Your task to perform on an android device: Open settings on Google Maps Image 0: 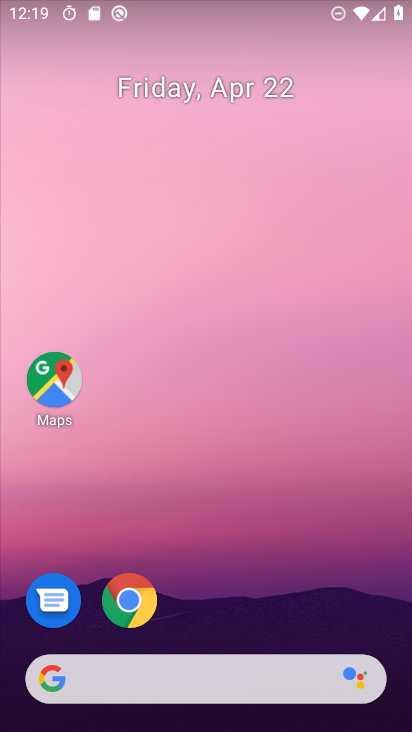
Step 0: click (56, 379)
Your task to perform on an android device: Open settings on Google Maps Image 1: 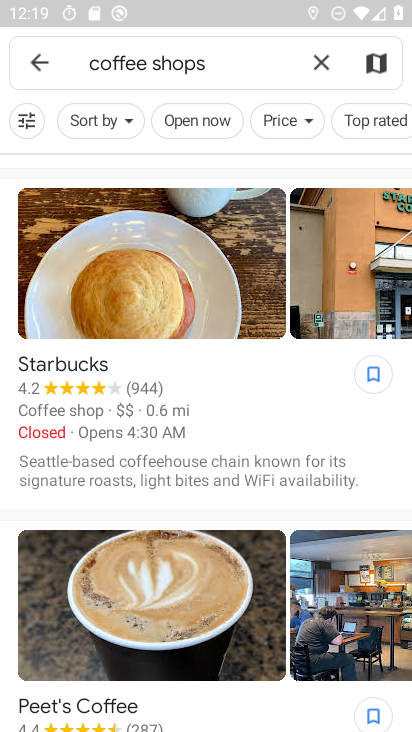
Step 1: click (322, 65)
Your task to perform on an android device: Open settings on Google Maps Image 2: 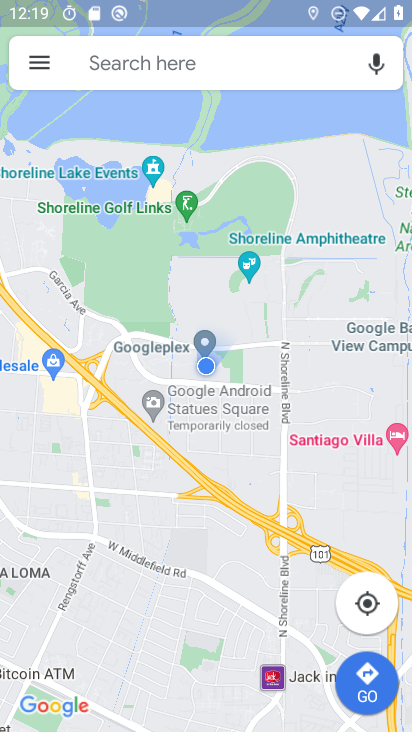
Step 2: click (41, 62)
Your task to perform on an android device: Open settings on Google Maps Image 3: 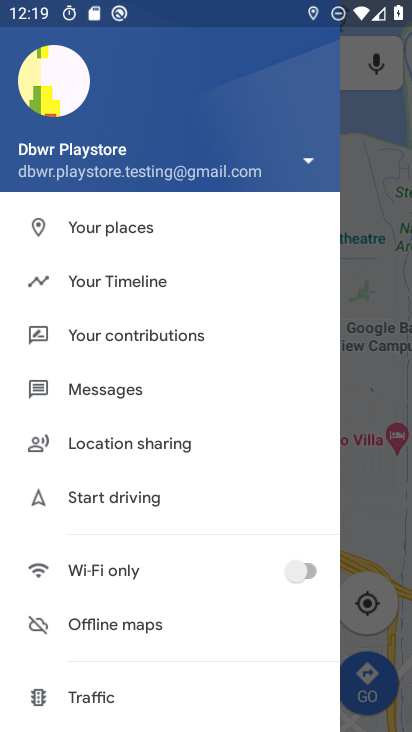
Step 3: drag from (125, 363) to (145, 277)
Your task to perform on an android device: Open settings on Google Maps Image 4: 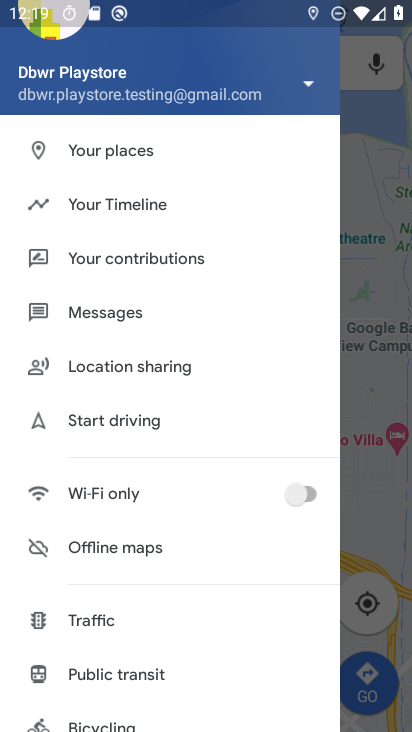
Step 4: drag from (120, 342) to (134, 276)
Your task to perform on an android device: Open settings on Google Maps Image 5: 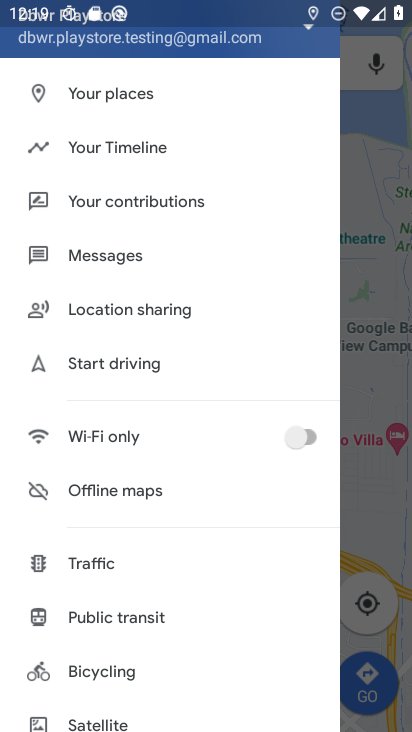
Step 5: drag from (98, 337) to (151, 248)
Your task to perform on an android device: Open settings on Google Maps Image 6: 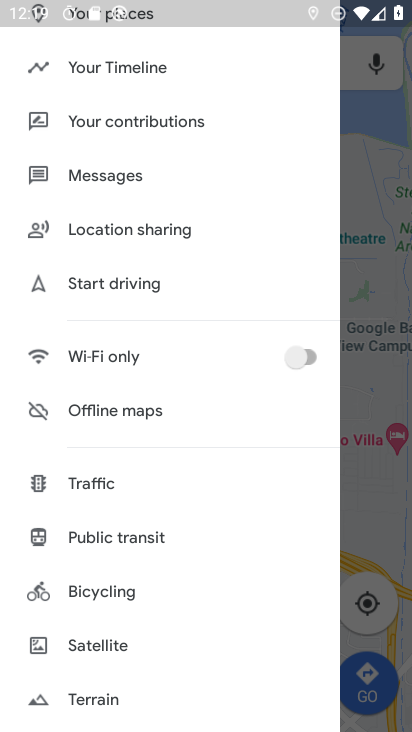
Step 6: drag from (104, 307) to (152, 240)
Your task to perform on an android device: Open settings on Google Maps Image 7: 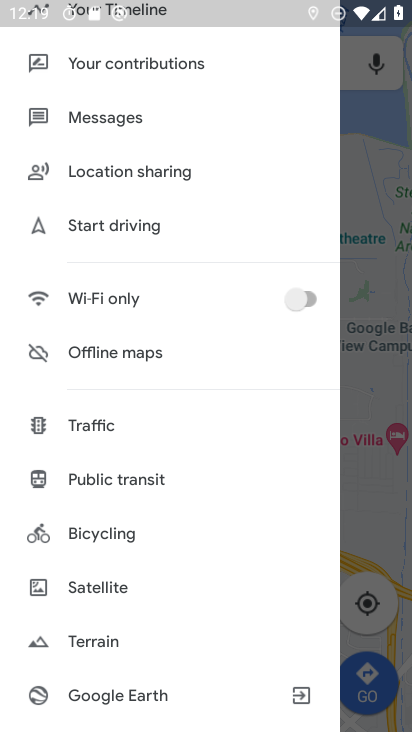
Step 7: drag from (125, 276) to (193, 175)
Your task to perform on an android device: Open settings on Google Maps Image 8: 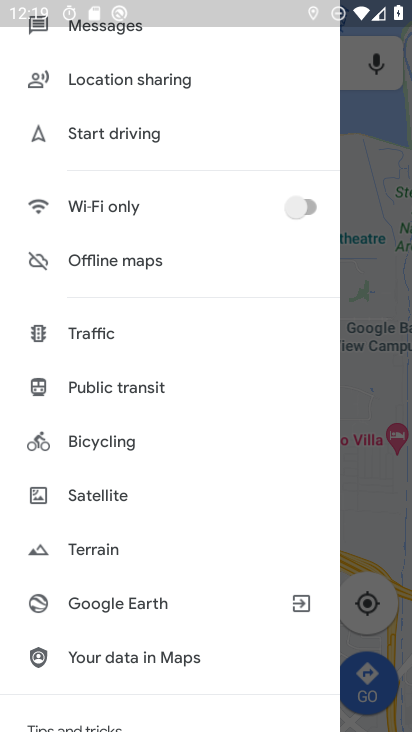
Step 8: drag from (95, 302) to (158, 213)
Your task to perform on an android device: Open settings on Google Maps Image 9: 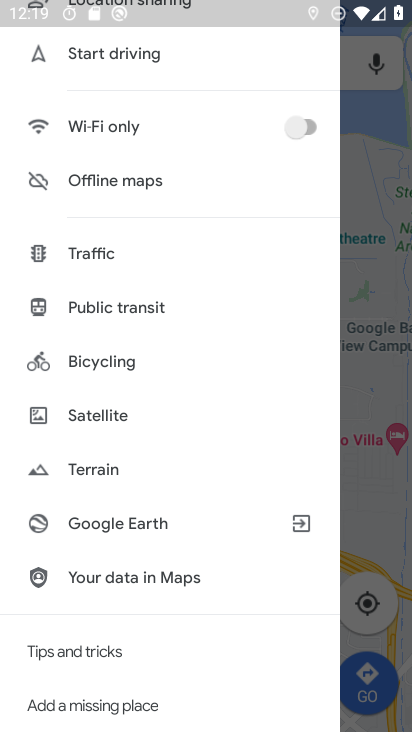
Step 9: drag from (89, 296) to (169, 205)
Your task to perform on an android device: Open settings on Google Maps Image 10: 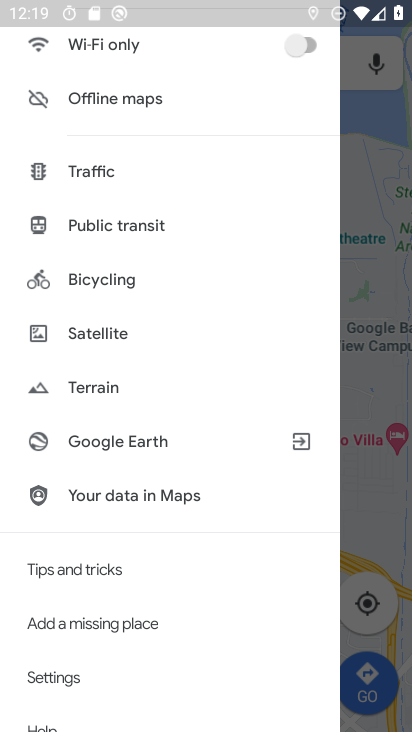
Step 10: drag from (89, 365) to (139, 281)
Your task to perform on an android device: Open settings on Google Maps Image 11: 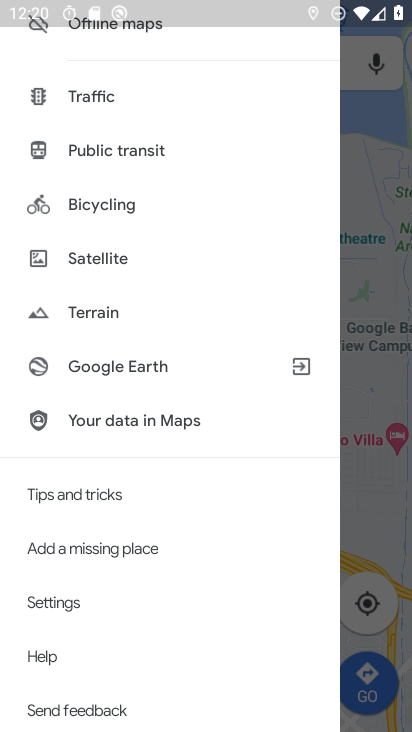
Step 11: click (59, 606)
Your task to perform on an android device: Open settings on Google Maps Image 12: 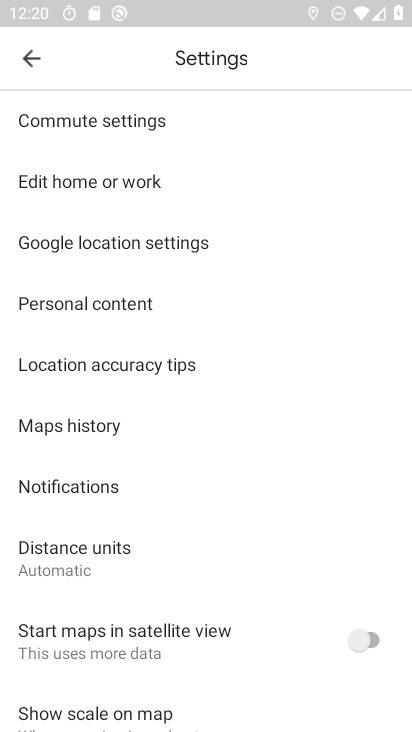
Step 12: task complete